Your task to perform on an android device: toggle notification dots Image 0: 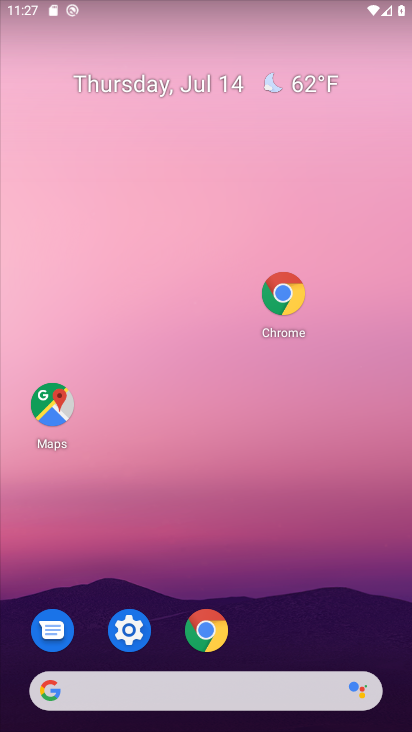
Step 0: drag from (269, 622) to (137, 12)
Your task to perform on an android device: toggle notification dots Image 1: 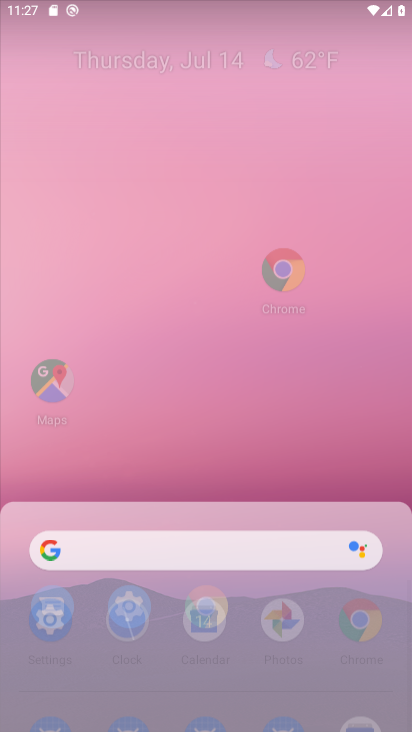
Step 1: click (92, 70)
Your task to perform on an android device: toggle notification dots Image 2: 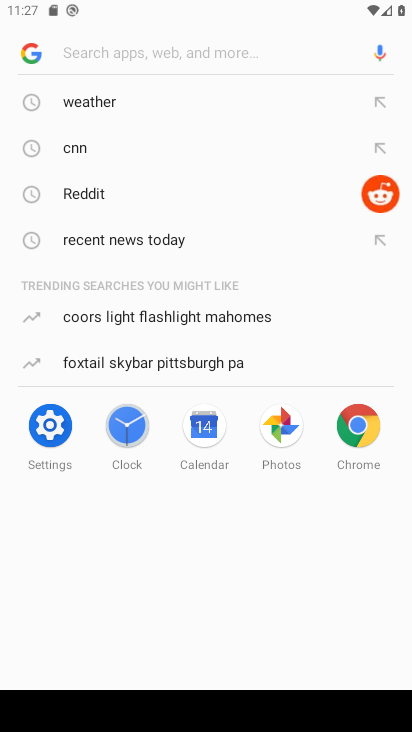
Step 2: press back button
Your task to perform on an android device: toggle notification dots Image 3: 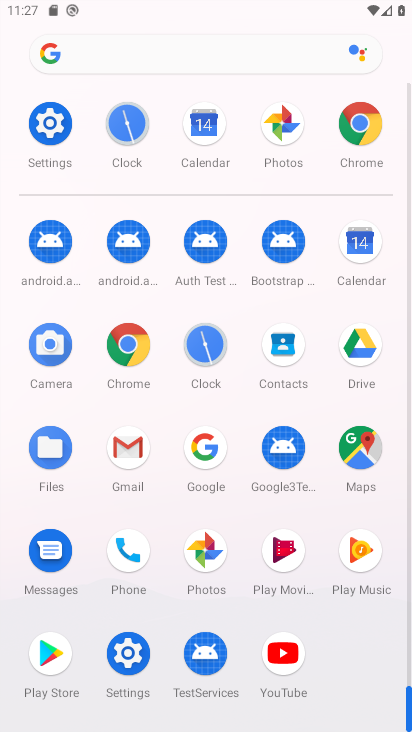
Step 3: click (53, 131)
Your task to perform on an android device: toggle notification dots Image 4: 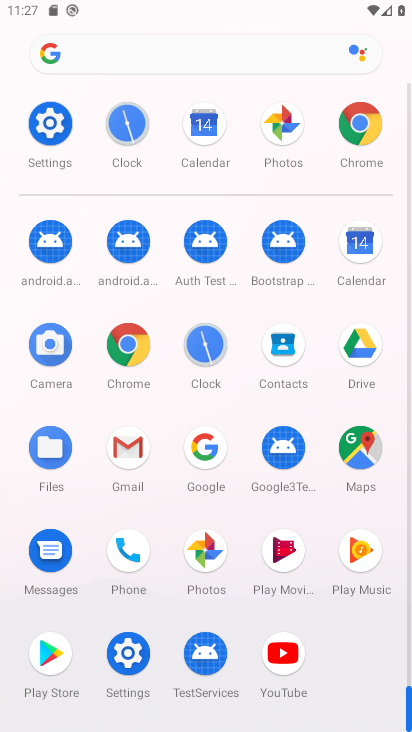
Step 4: click (53, 131)
Your task to perform on an android device: toggle notification dots Image 5: 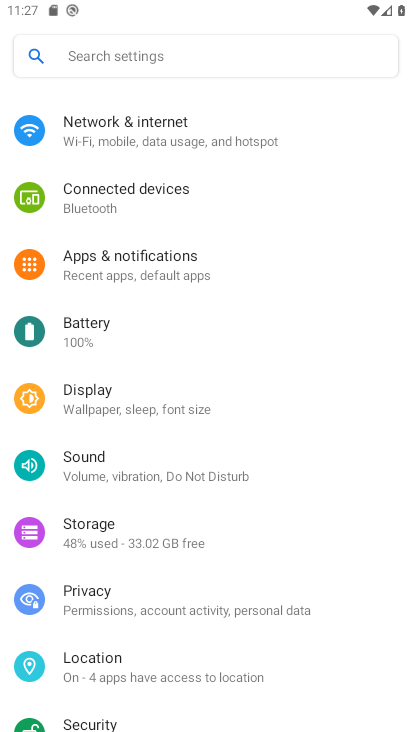
Step 5: click (53, 131)
Your task to perform on an android device: toggle notification dots Image 6: 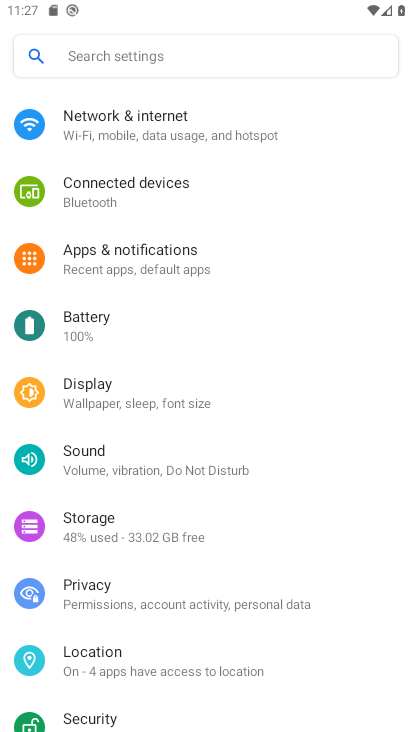
Step 6: click (60, 141)
Your task to perform on an android device: toggle notification dots Image 7: 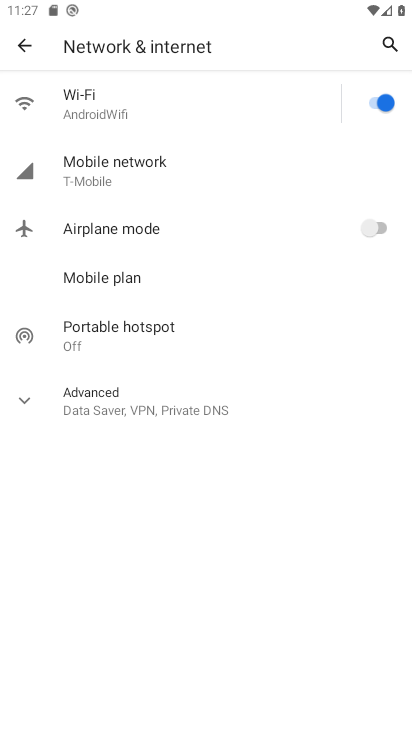
Step 7: click (13, 34)
Your task to perform on an android device: toggle notification dots Image 8: 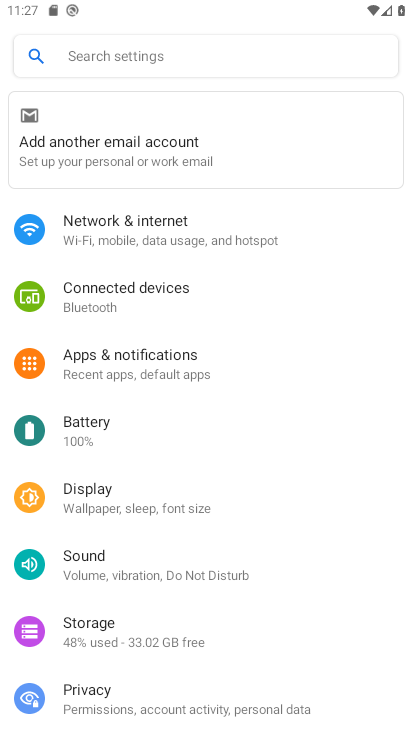
Step 8: click (128, 355)
Your task to perform on an android device: toggle notification dots Image 9: 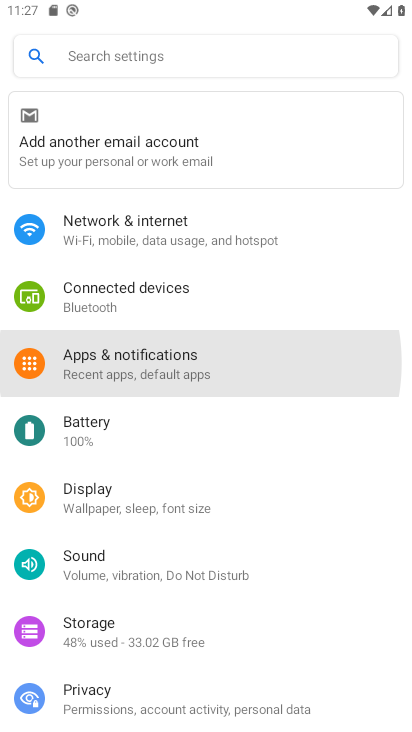
Step 9: click (128, 355)
Your task to perform on an android device: toggle notification dots Image 10: 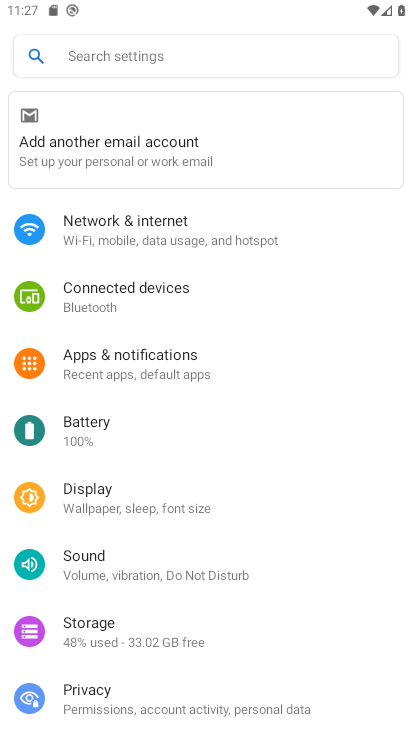
Step 10: click (128, 356)
Your task to perform on an android device: toggle notification dots Image 11: 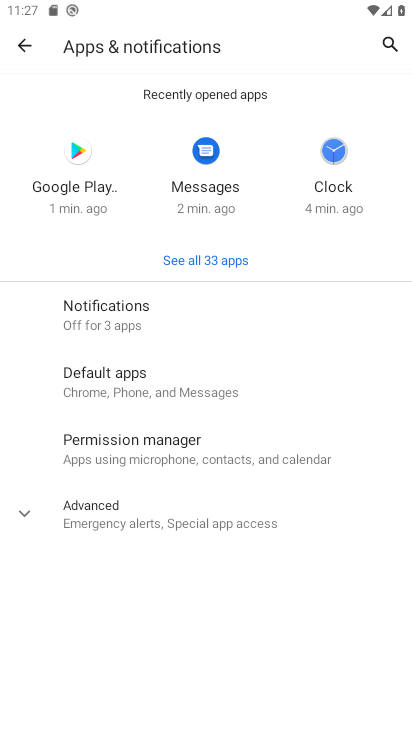
Step 11: click (98, 330)
Your task to perform on an android device: toggle notification dots Image 12: 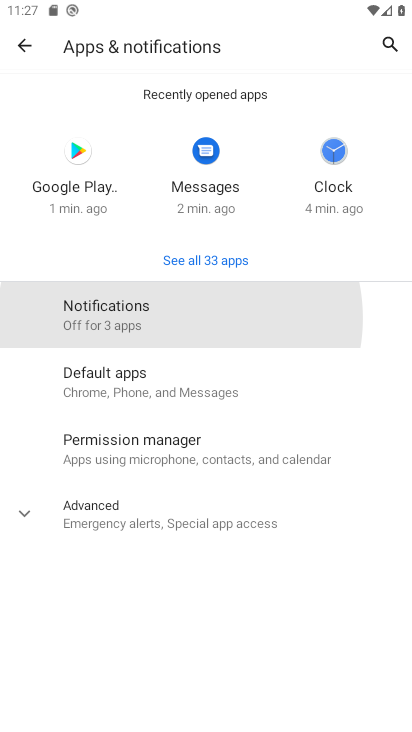
Step 12: click (96, 326)
Your task to perform on an android device: toggle notification dots Image 13: 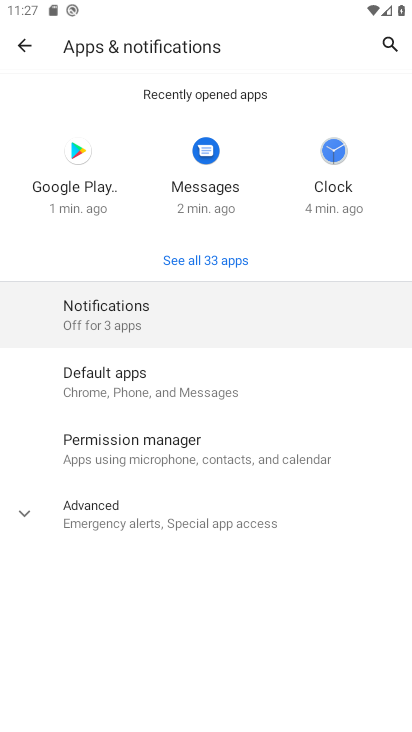
Step 13: click (96, 326)
Your task to perform on an android device: toggle notification dots Image 14: 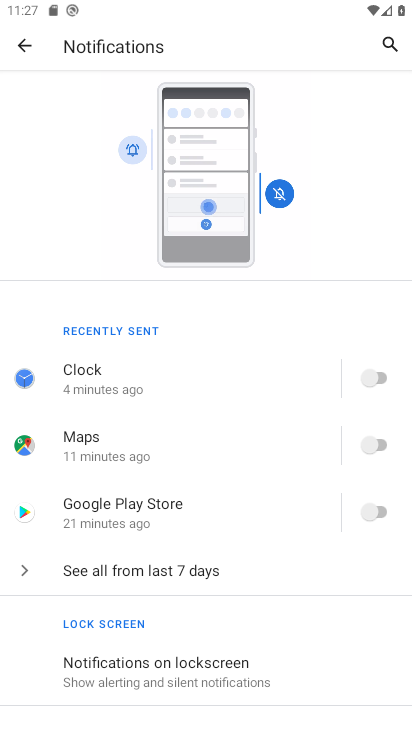
Step 14: drag from (183, 665) to (180, 339)
Your task to perform on an android device: toggle notification dots Image 15: 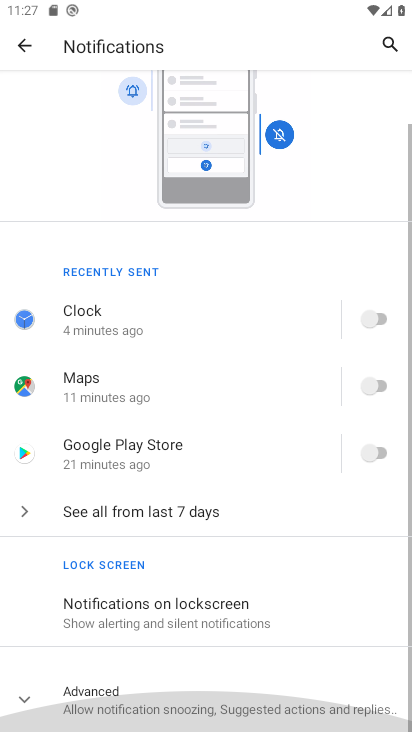
Step 15: drag from (213, 546) to (216, 230)
Your task to perform on an android device: toggle notification dots Image 16: 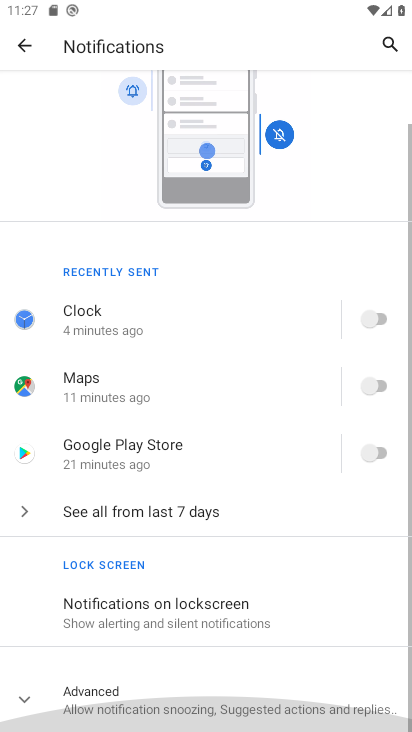
Step 16: drag from (255, 465) to (264, 220)
Your task to perform on an android device: toggle notification dots Image 17: 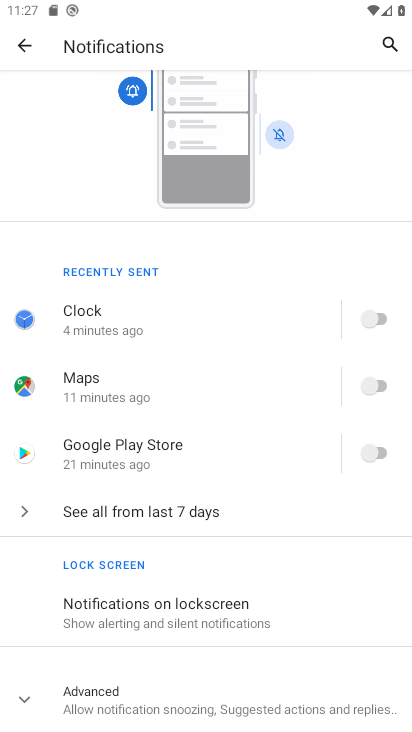
Step 17: click (105, 712)
Your task to perform on an android device: toggle notification dots Image 18: 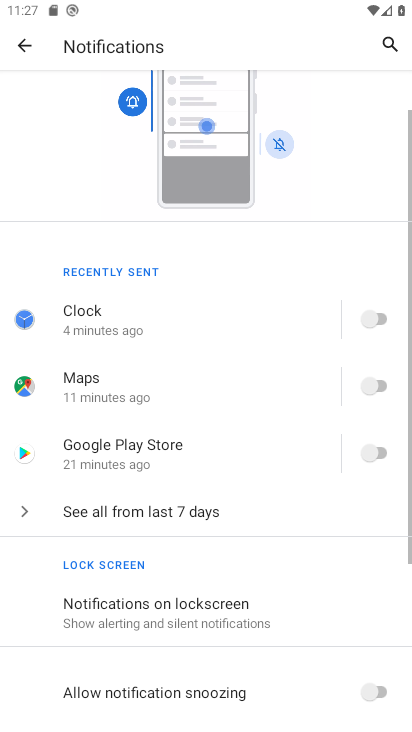
Step 18: drag from (204, 583) to (212, 190)
Your task to perform on an android device: toggle notification dots Image 19: 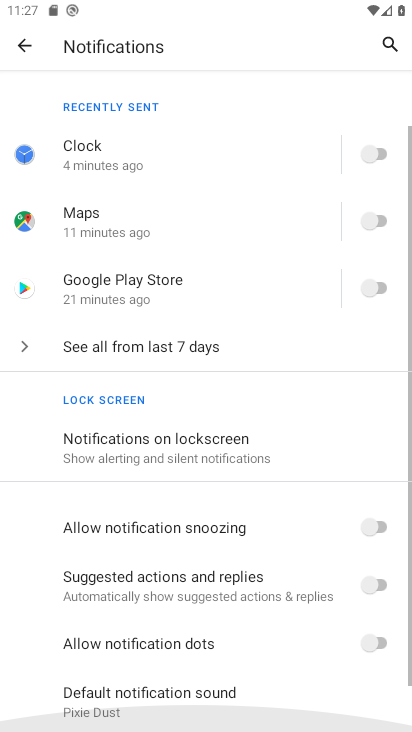
Step 19: drag from (255, 430) to (232, 189)
Your task to perform on an android device: toggle notification dots Image 20: 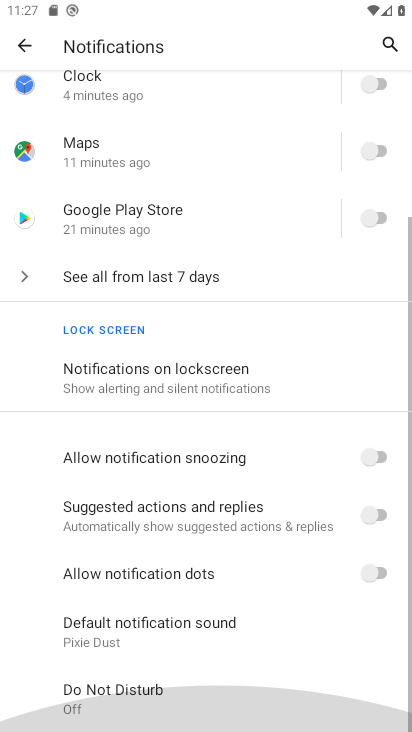
Step 20: drag from (251, 623) to (247, 273)
Your task to perform on an android device: toggle notification dots Image 21: 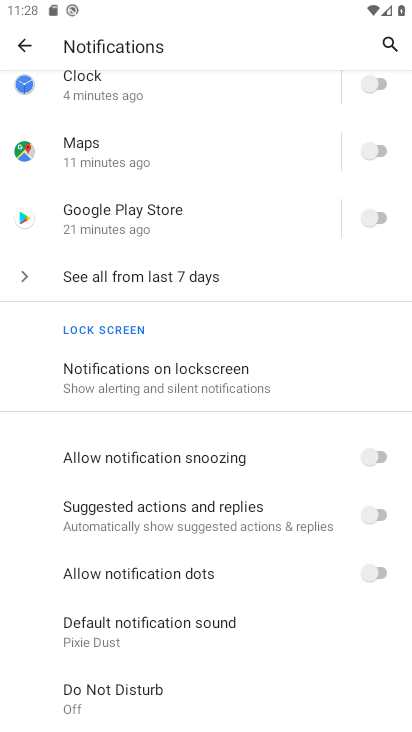
Step 21: click (363, 564)
Your task to perform on an android device: toggle notification dots Image 22: 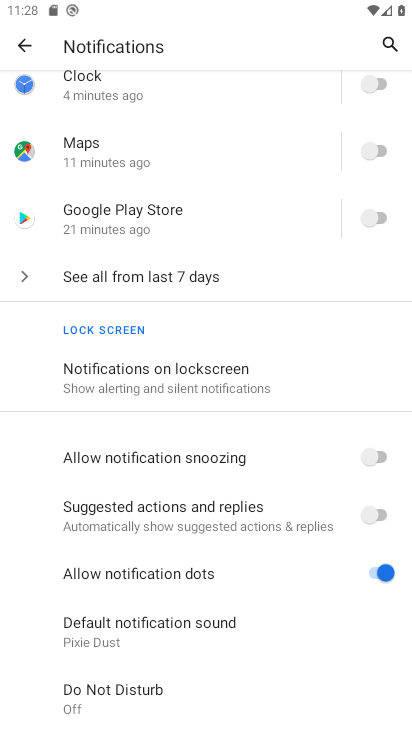
Step 22: task complete